Your task to perform on an android device: set the stopwatch Image 0: 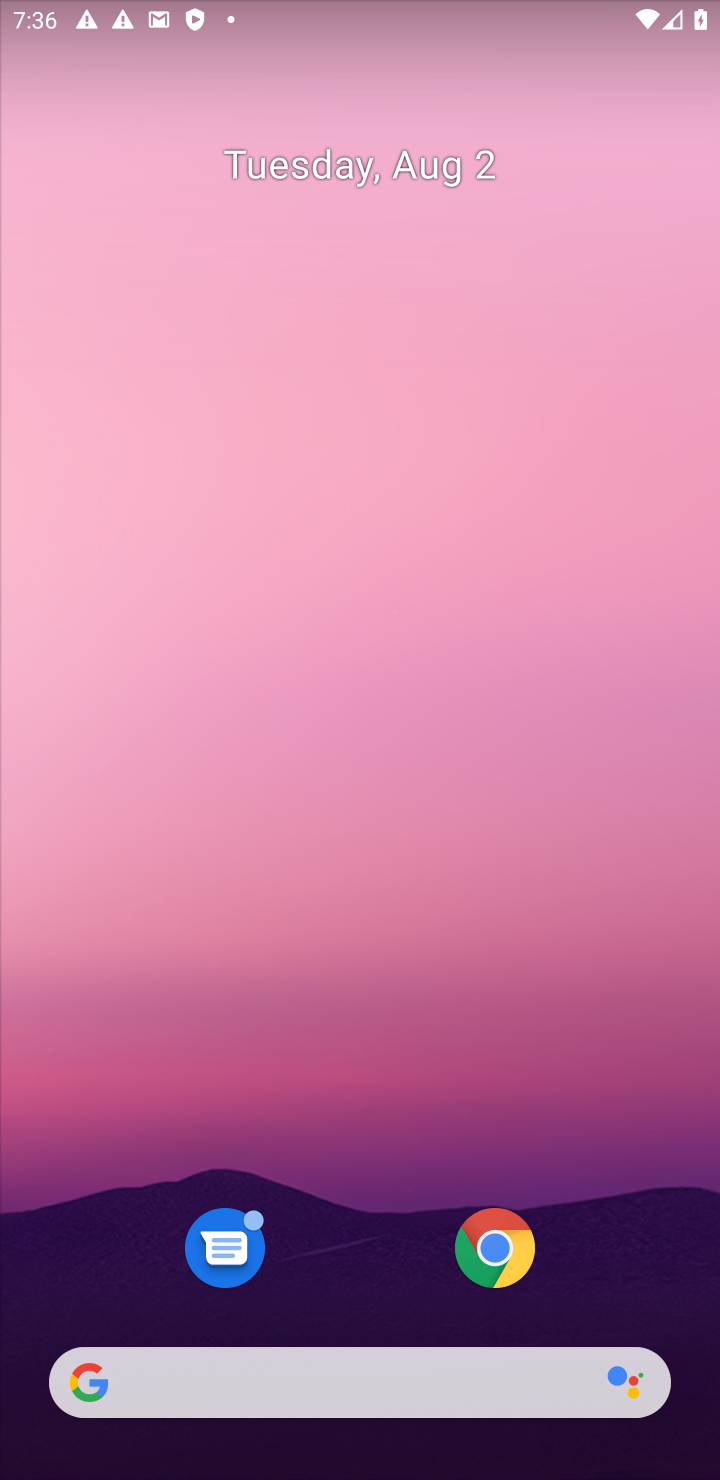
Step 0: drag from (442, 632) to (528, 214)
Your task to perform on an android device: set the stopwatch Image 1: 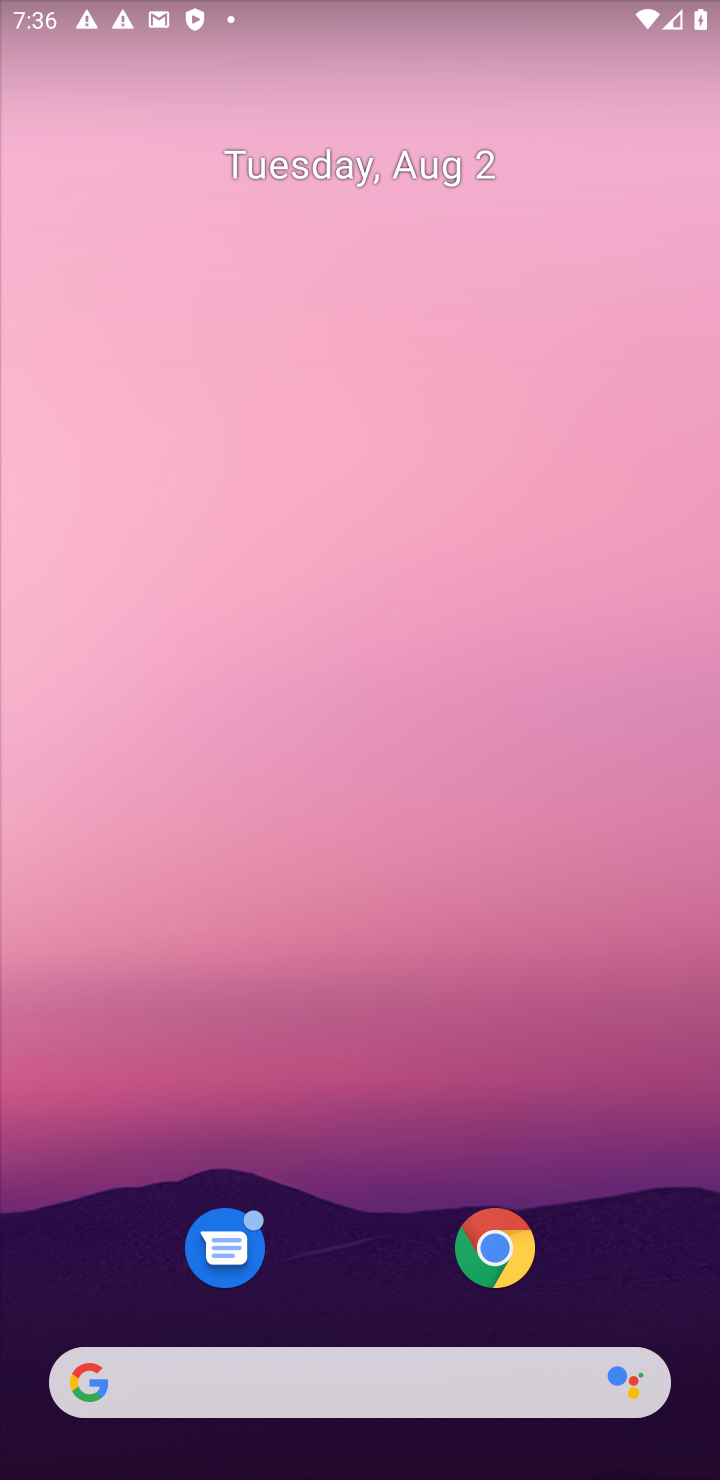
Step 1: drag from (322, 1340) to (689, 921)
Your task to perform on an android device: set the stopwatch Image 2: 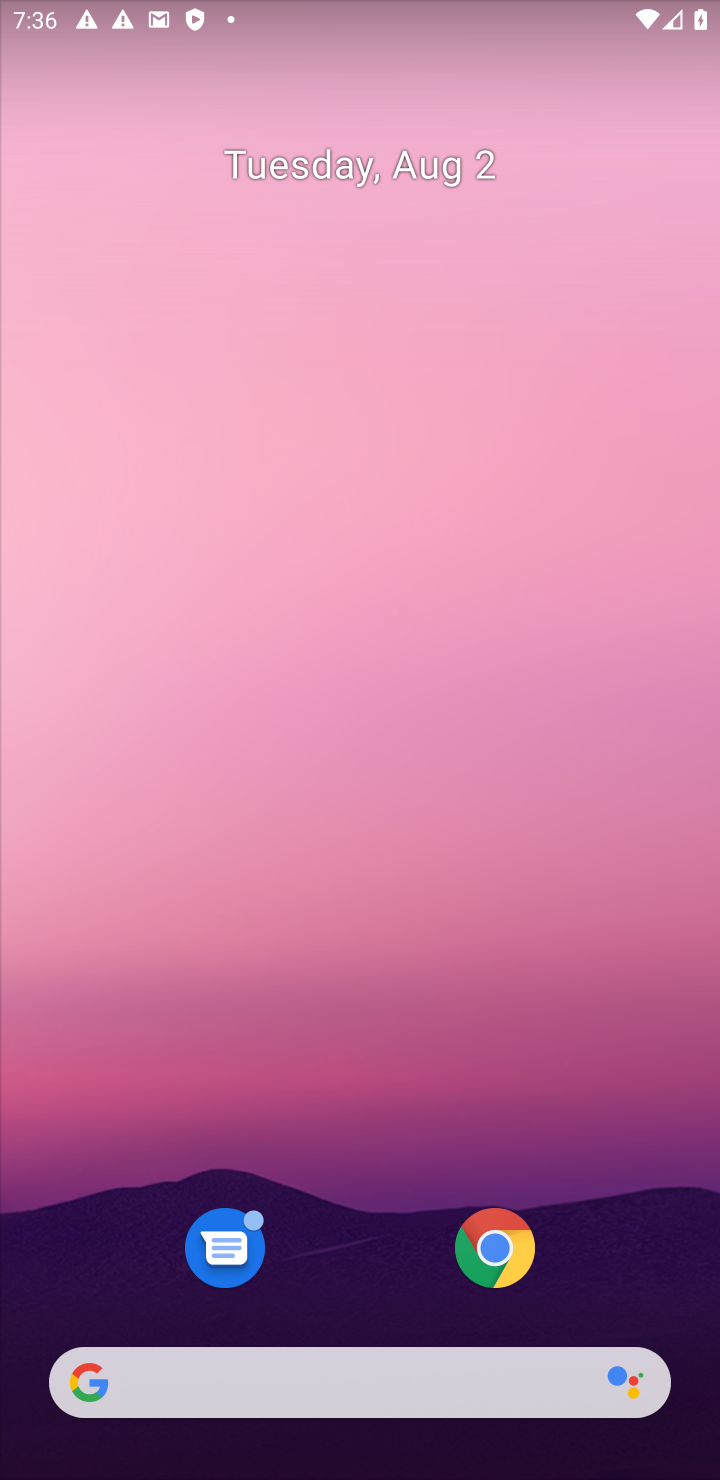
Step 2: drag from (441, 1159) to (562, 392)
Your task to perform on an android device: set the stopwatch Image 3: 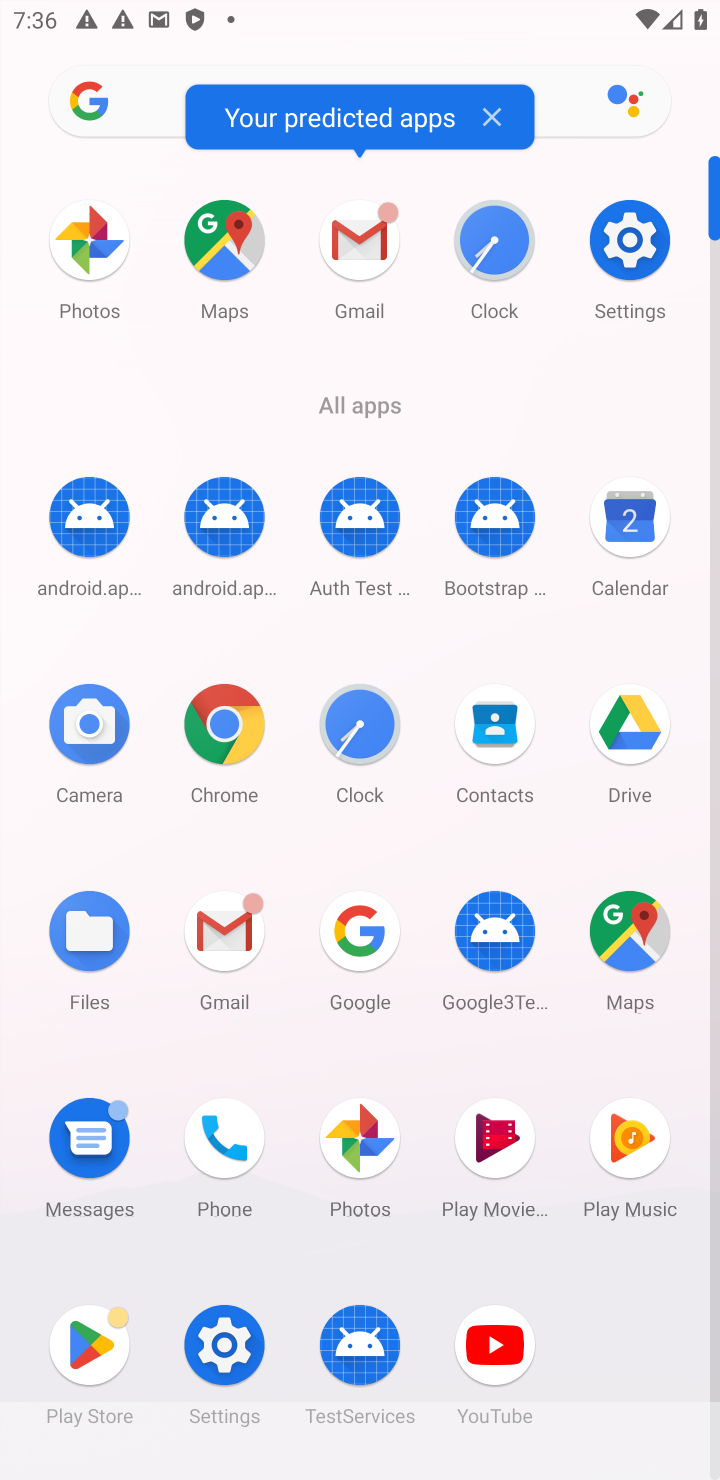
Step 3: click (347, 747)
Your task to perform on an android device: set the stopwatch Image 4: 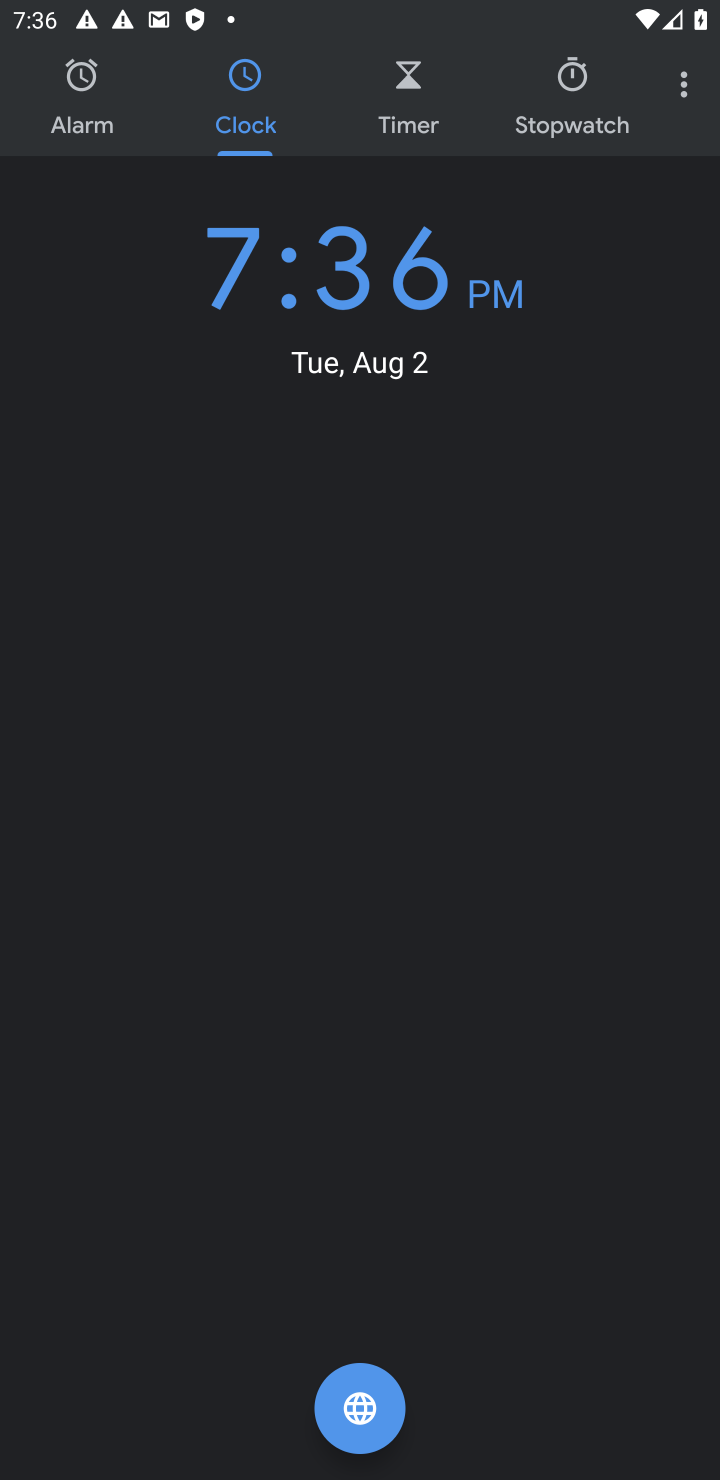
Step 4: click (599, 141)
Your task to perform on an android device: set the stopwatch Image 5: 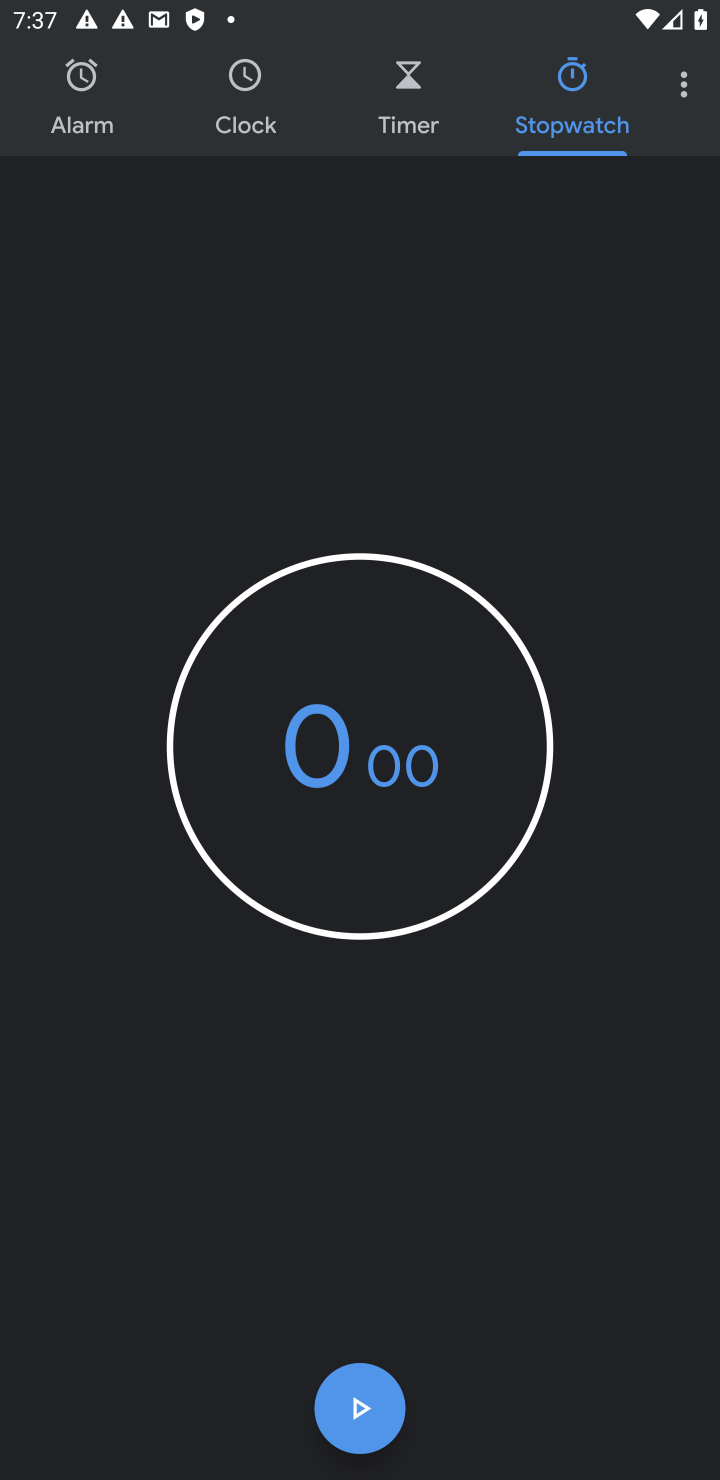
Step 5: click (374, 1412)
Your task to perform on an android device: set the stopwatch Image 6: 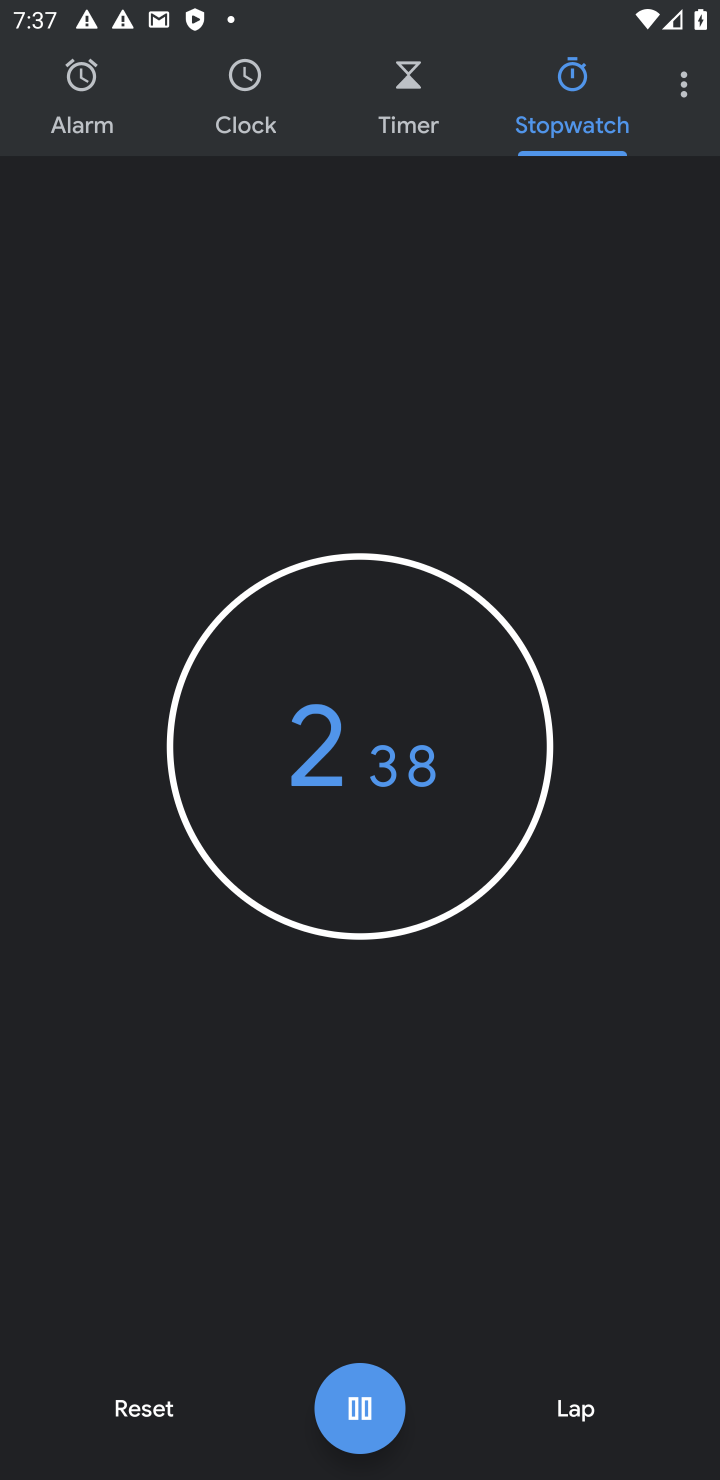
Step 6: task complete